Your task to perform on an android device: turn pop-ups off in chrome Image 0: 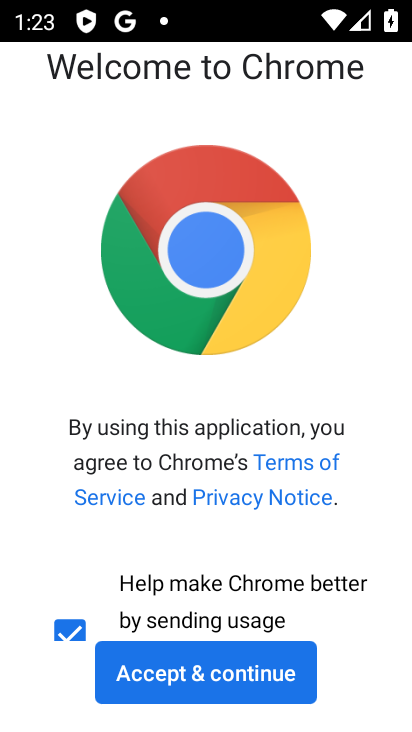
Step 0: click (173, 684)
Your task to perform on an android device: turn pop-ups off in chrome Image 1: 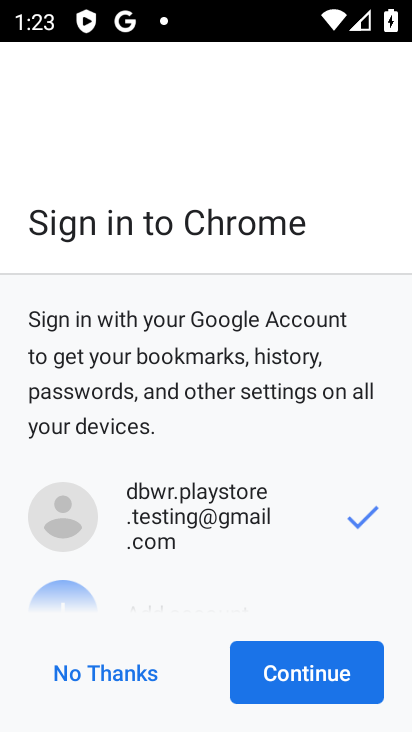
Step 1: click (139, 667)
Your task to perform on an android device: turn pop-ups off in chrome Image 2: 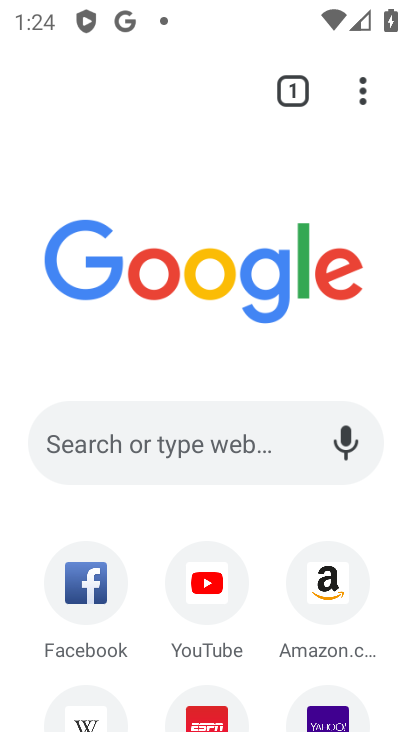
Step 2: press home button
Your task to perform on an android device: turn pop-ups off in chrome Image 3: 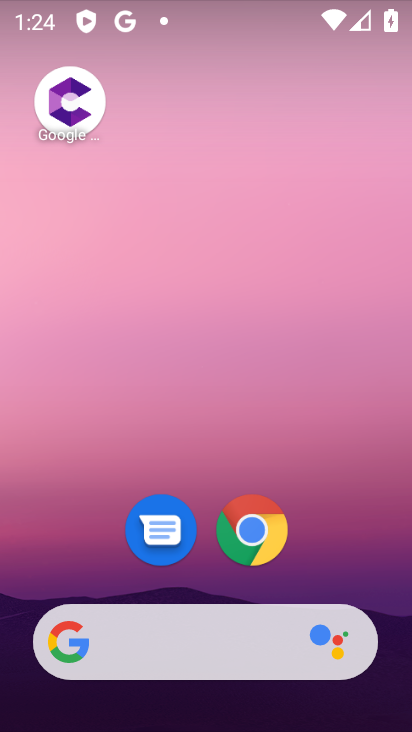
Step 3: click (241, 528)
Your task to perform on an android device: turn pop-ups off in chrome Image 4: 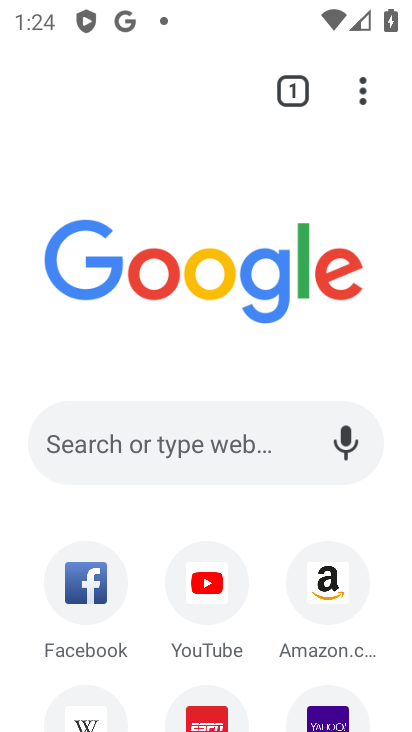
Step 4: click (360, 100)
Your task to perform on an android device: turn pop-ups off in chrome Image 5: 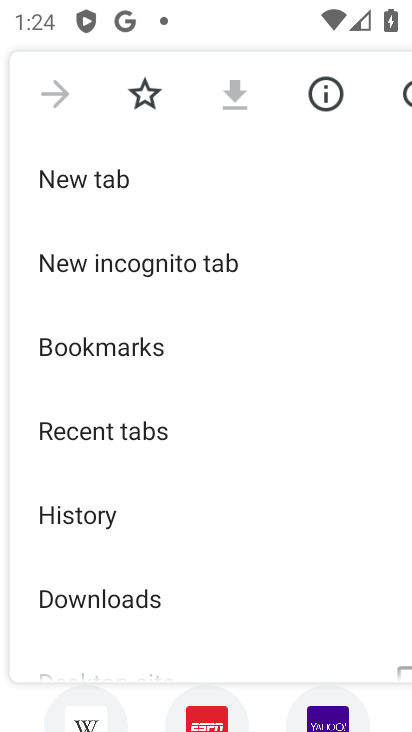
Step 5: drag from (71, 628) to (264, 160)
Your task to perform on an android device: turn pop-ups off in chrome Image 6: 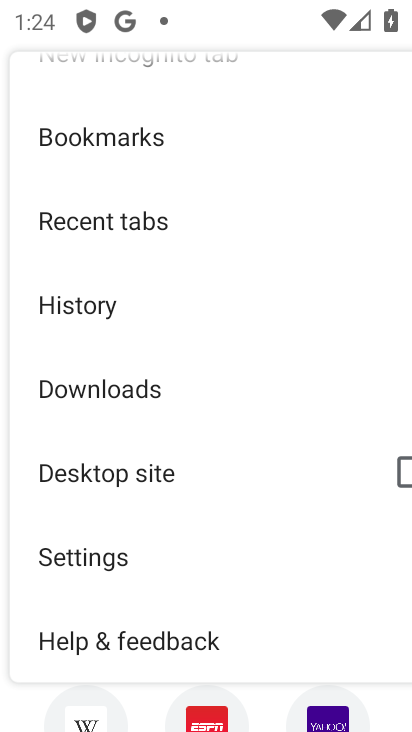
Step 6: click (103, 555)
Your task to perform on an android device: turn pop-ups off in chrome Image 7: 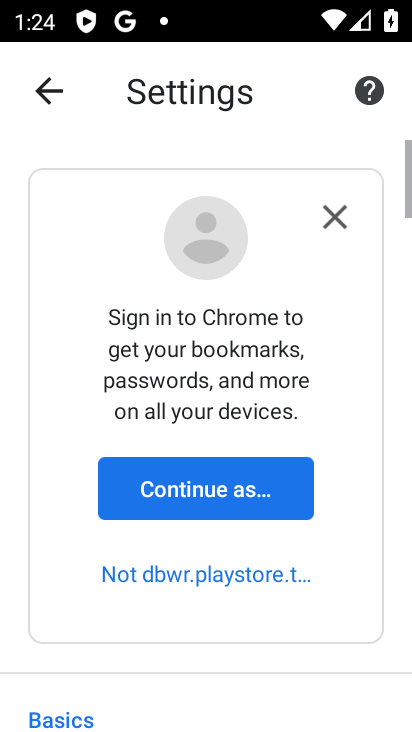
Step 7: click (336, 220)
Your task to perform on an android device: turn pop-ups off in chrome Image 8: 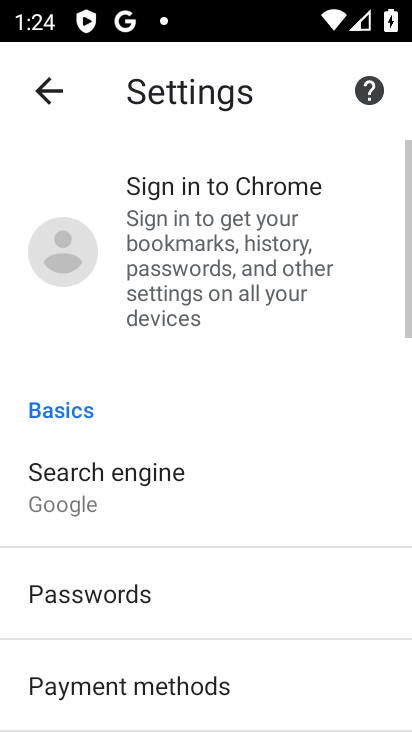
Step 8: drag from (30, 577) to (237, 226)
Your task to perform on an android device: turn pop-ups off in chrome Image 9: 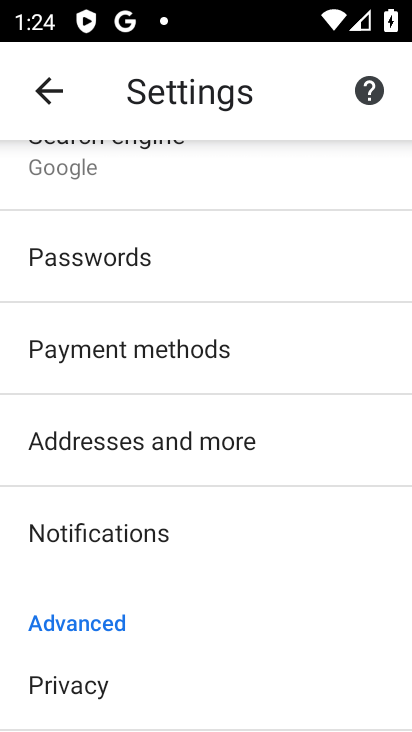
Step 9: drag from (6, 680) to (262, 213)
Your task to perform on an android device: turn pop-ups off in chrome Image 10: 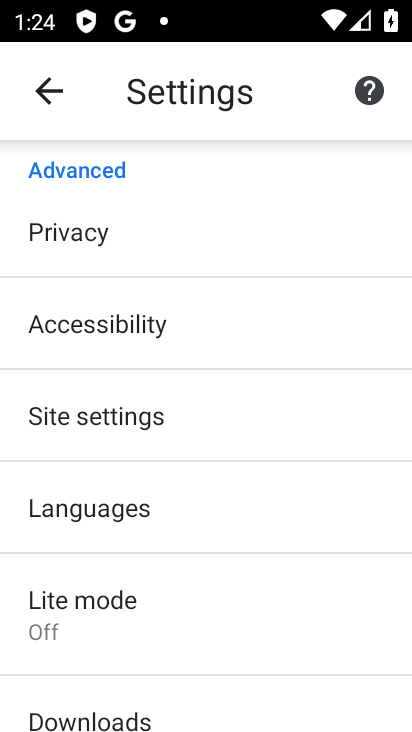
Step 10: click (123, 403)
Your task to perform on an android device: turn pop-ups off in chrome Image 11: 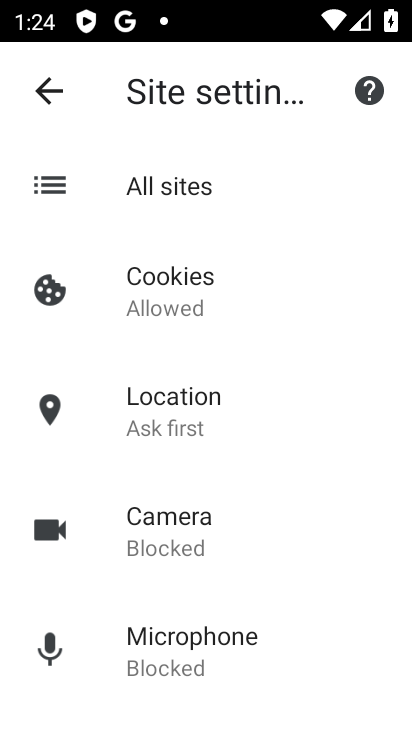
Step 11: drag from (116, 669) to (263, 280)
Your task to perform on an android device: turn pop-ups off in chrome Image 12: 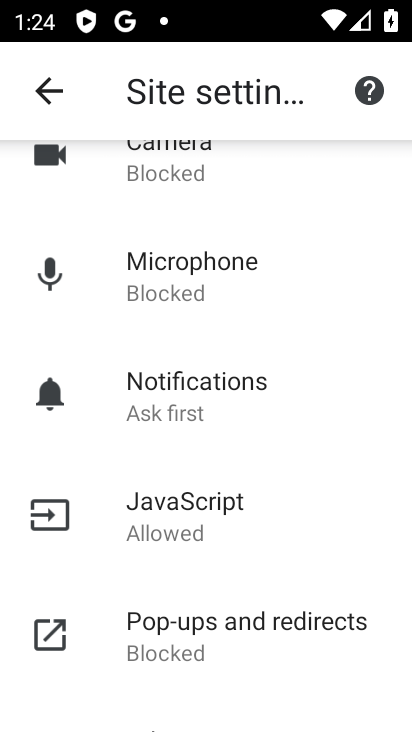
Step 12: drag from (150, 644) to (314, 206)
Your task to perform on an android device: turn pop-ups off in chrome Image 13: 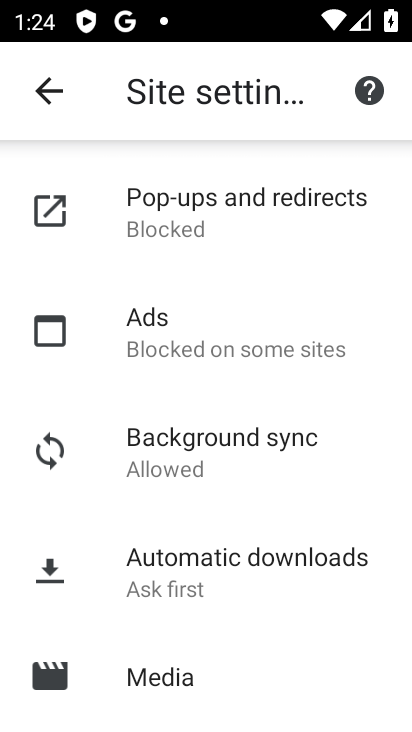
Step 13: click (264, 218)
Your task to perform on an android device: turn pop-ups off in chrome Image 14: 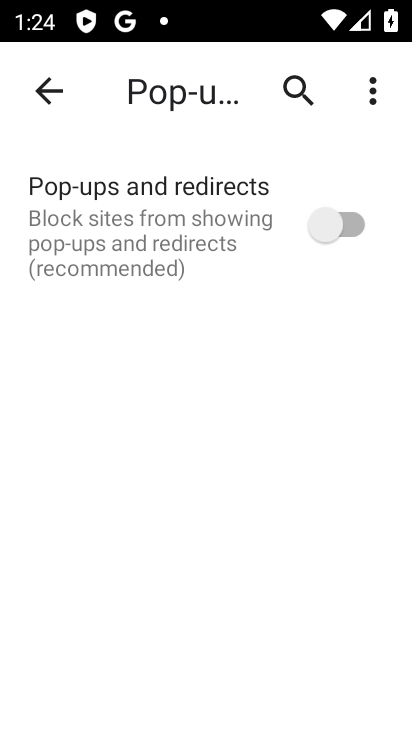
Step 14: task complete